Your task to perform on an android device: Check the weather Image 0: 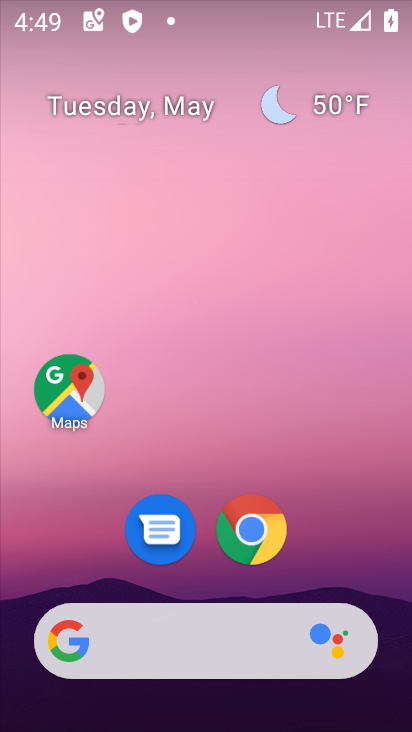
Step 0: drag from (334, 533) to (227, 15)
Your task to perform on an android device: Check the weather Image 1: 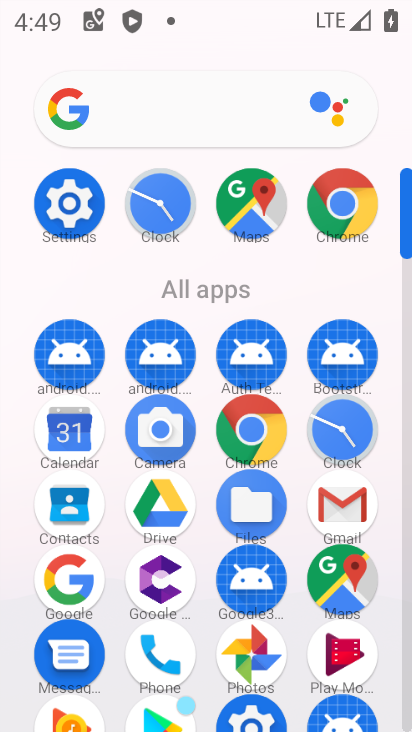
Step 1: drag from (0, 513) to (7, 244)
Your task to perform on an android device: Check the weather Image 2: 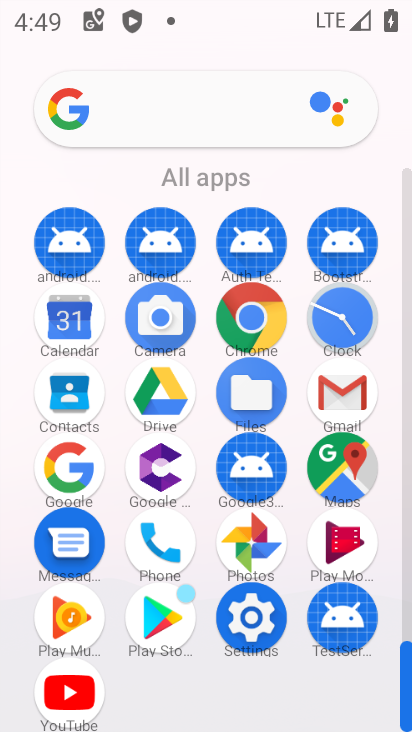
Step 2: click (255, 314)
Your task to perform on an android device: Check the weather Image 3: 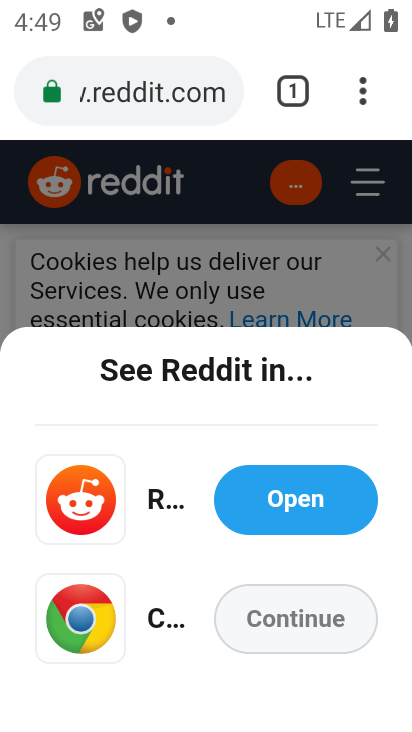
Step 3: click (148, 100)
Your task to perform on an android device: Check the weather Image 4: 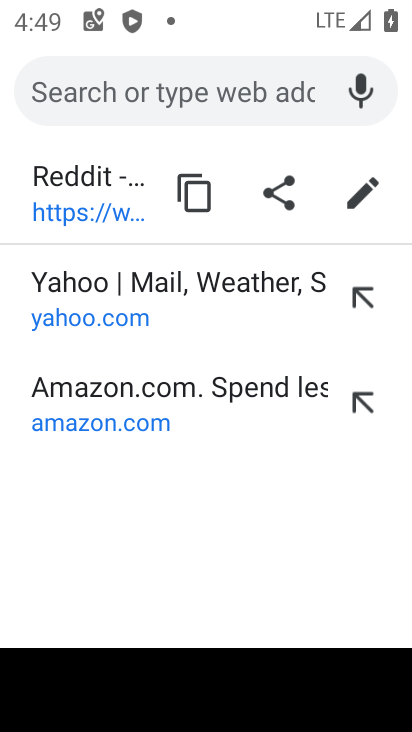
Step 4: type "Check the weather"
Your task to perform on an android device: Check the weather Image 5: 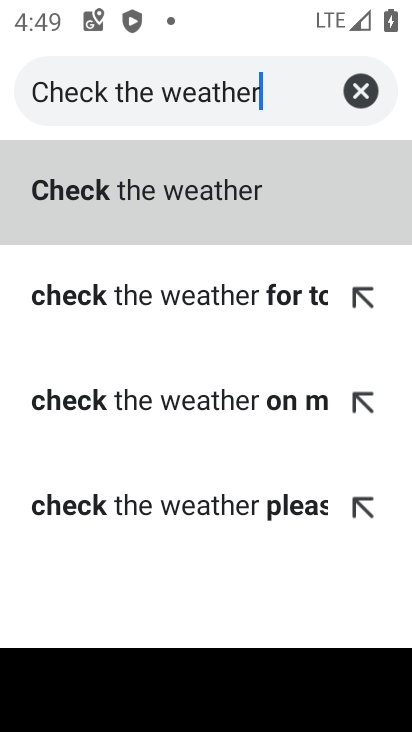
Step 5: click (213, 214)
Your task to perform on an android device: Check the weather Image 6: 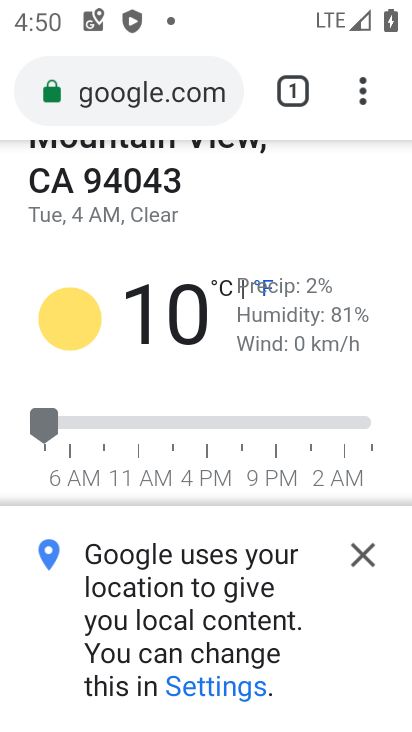
Step 6: click (358, 559)
Your task to perform on an android device: Check the weather Image 7: 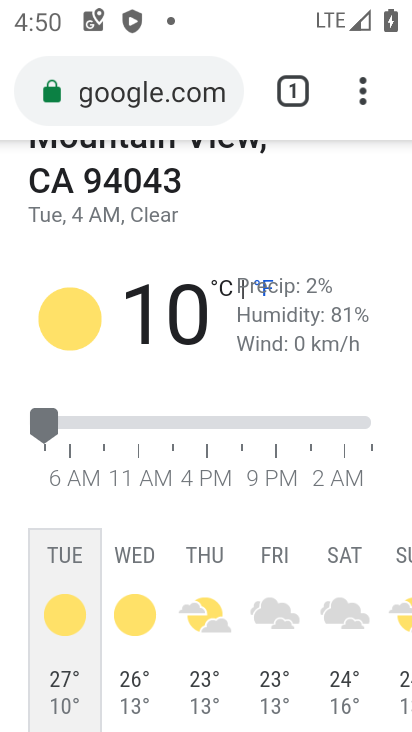
Step 7: task complete